Your task to perform on an android device: Search for vegetarian restaurants on Maps Image 0: 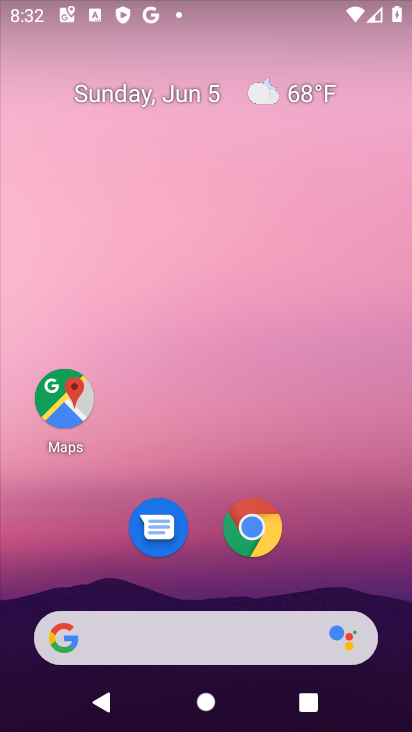
Step 0: click (69, 384)
Your task to perform on an android device: Search for vegetarian restaurants on Maps Image 1: 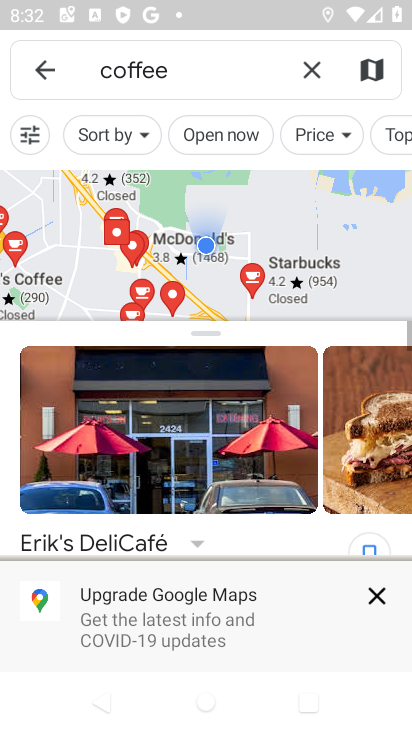
Step 1: click (308, 66)
Your task to perform on an android device: Search for vegetarian restaurants on Maps Image 2: 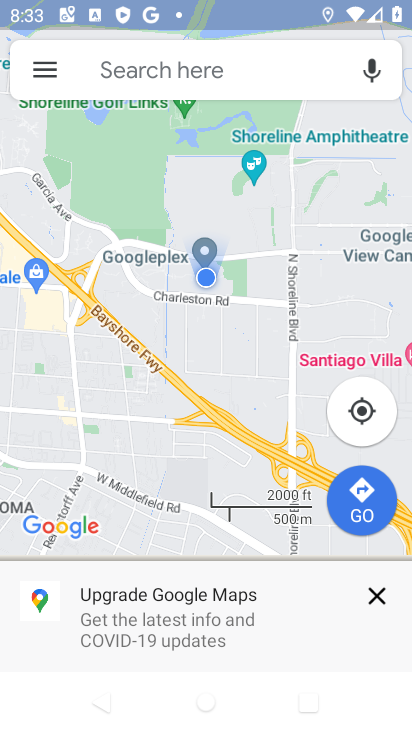
Step 2: click (170, 74)
Your task to perform on an android device: Search for vegetarian restaurants on Maps Image 3: 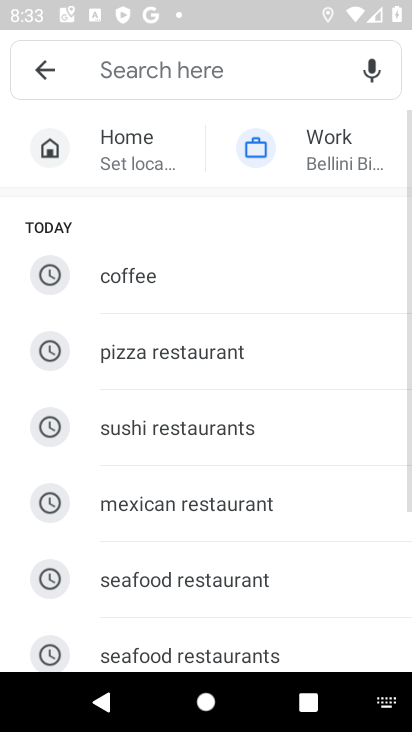
Step 3: drag from (172, 635) to (186, 275)
Your task to perform on an android device: Search for vegetarian restaurants on Maps Image 4: 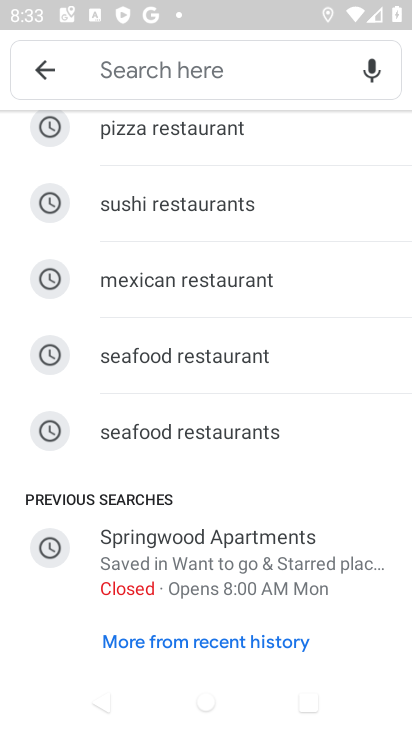
Step 4: click (161, 57)
Your task to perform on an android device: Search for vegetarian restaurants on Maps Image 5: 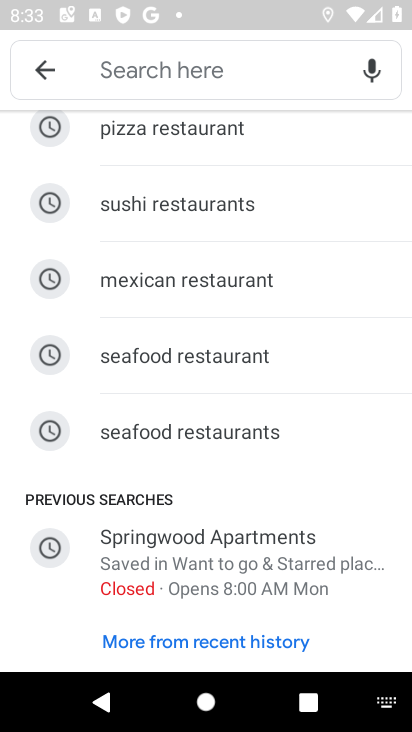
Step 5: type "vegetarian restaurant"
Your task to perform on an android device: Search for vegetarian restaurants on Maps Image 6: 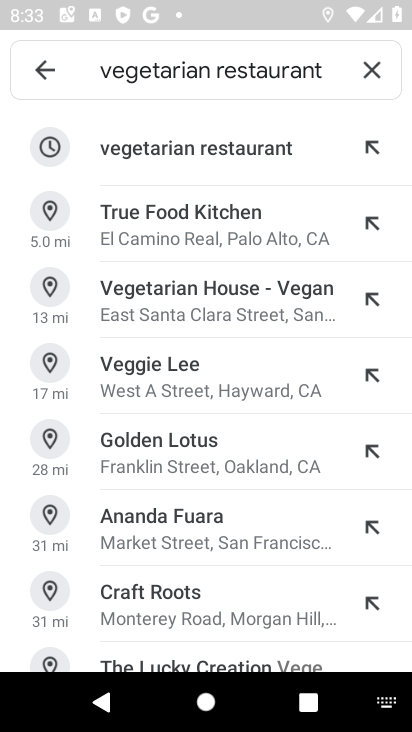
Step 6: click (216, 158)
Your task to perform on an android device: Search for vegetarian restaurants on Maps Image 7: 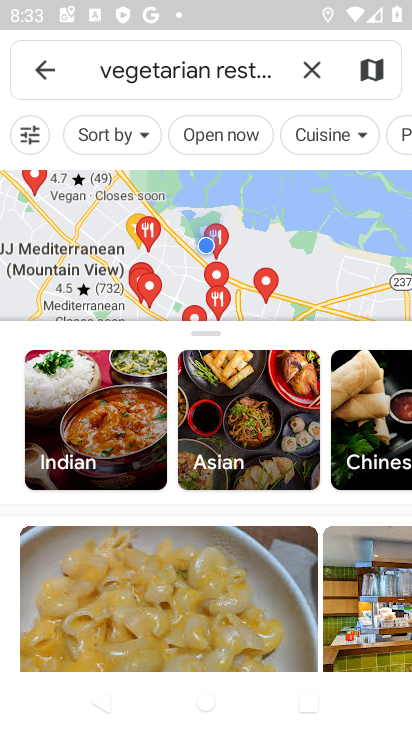
Step 7: task complete